Your task to perform on an android device: check android version Image 0: 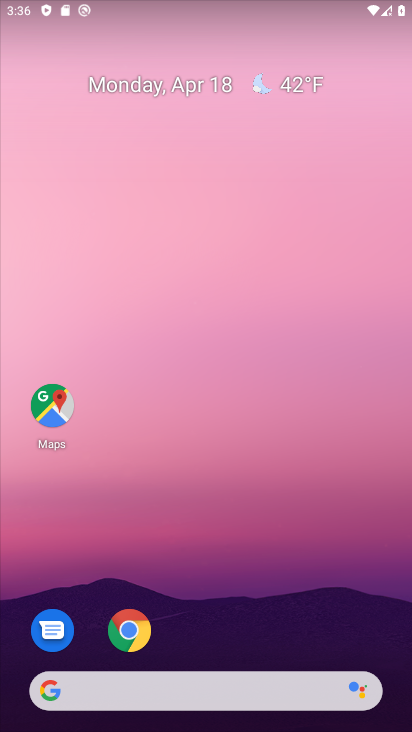
Step 0: drag from (141, 660) to (196, 216)
Your task to perform on an android device: check android version Image 1: 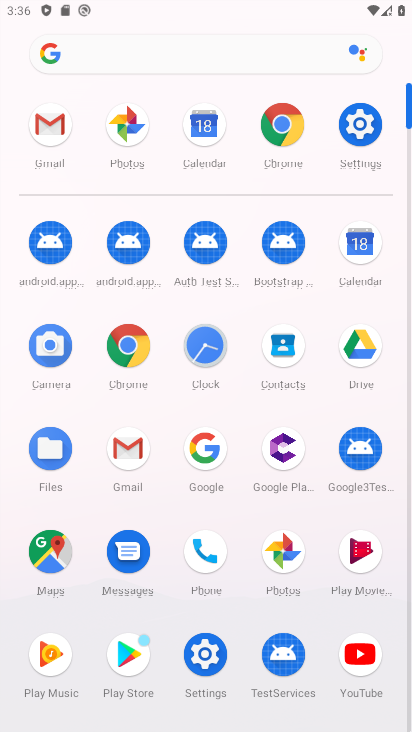
Step 1: click (371, 128)
Your task to perform on an android device: check android version Image 2: 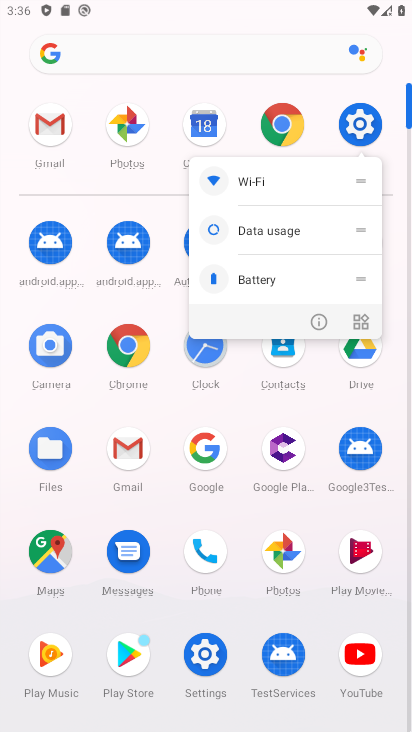
Step 2: click (361, 119)
Your task to perform on an android device: check android version Image 3: 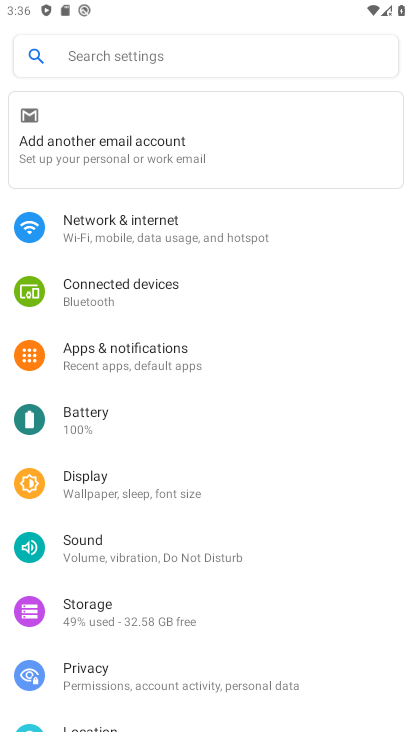
Step 3: drag from (143, 676) to (230, 83)
Your task to perform on an android device: check android version Image 4: 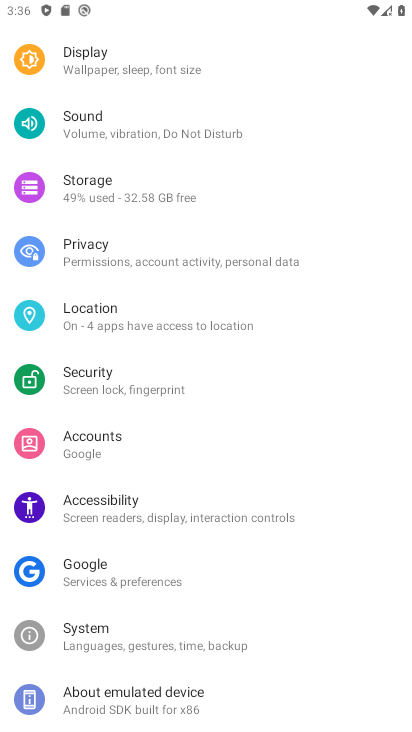
Step 4: click (81, 704)
Your task to perform on an android device: check android version Image 5: 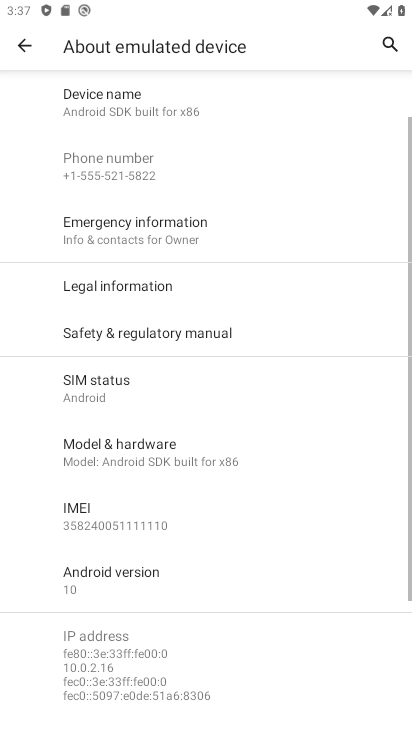
Step 5: click (115, 566)
Your task to perform on an android device: check android version Image 6: 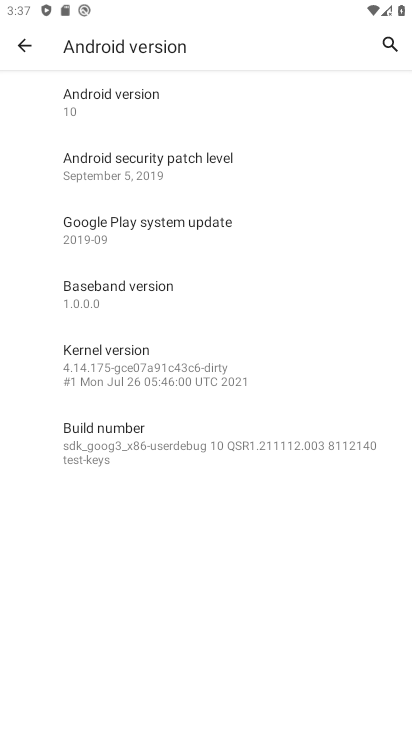
Step 6: task complete